Your task to perform on an android device: move an email to a new category in the gmail app Image 0: 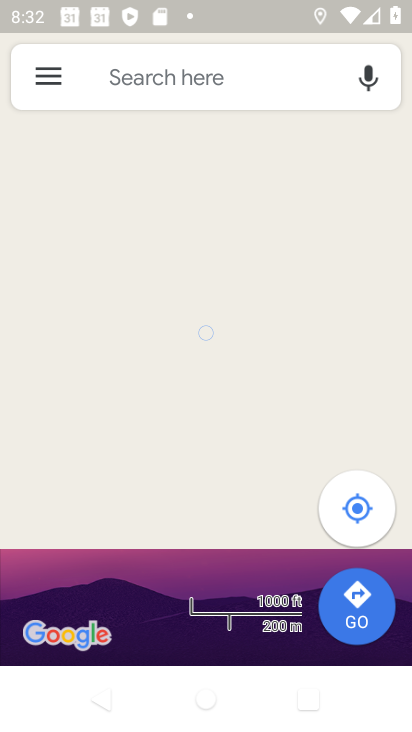
Step 0: drag from (249, 431) to (182, 86)
Your task to perform on an android device: move an email to a new category in the gmail app Image 1: 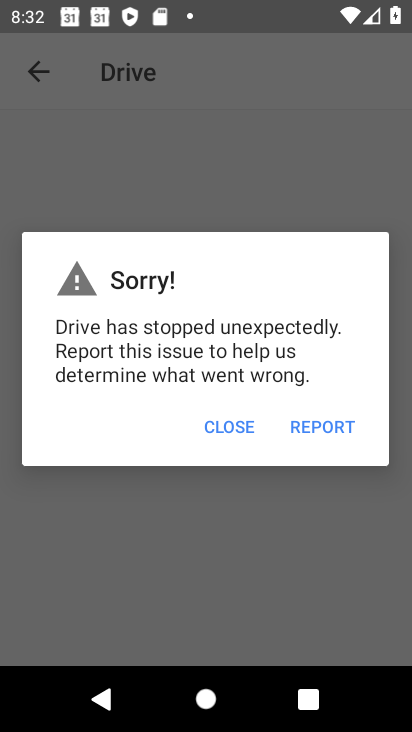
Step 1: press home button
Your task to perform on an android device: move an email to a new category in the gmail app Image 2: 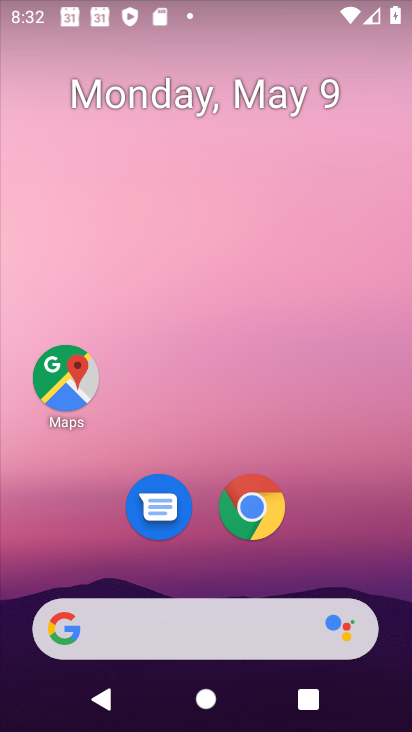
Step 2: drag from (308, 564) to (207, 203)
Your task to perform on an android device: move an email to a new category in the gmail app Image 3: 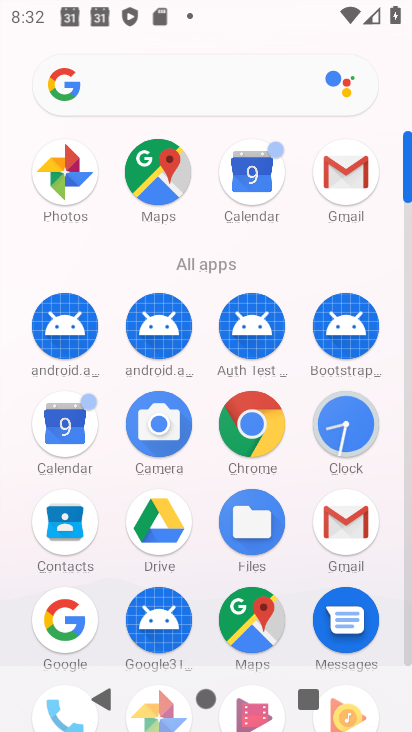
Step 3: click (345, 173)
Your task to perform on an android device: move an email to a new category in the gmail app Image 4: 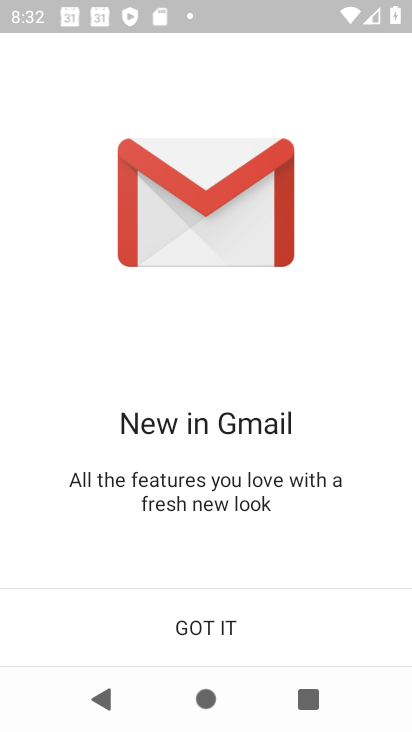
Step 4: click (210, 622)
Your task to perform on an android device: move an email to a new category in the gmail app Image 5: 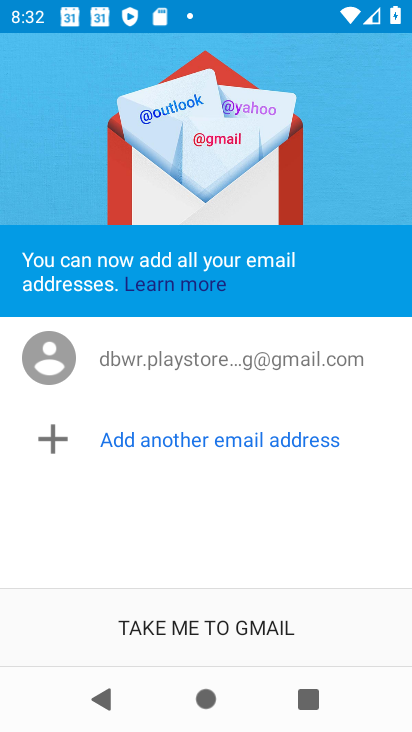
Step 5: click (210, 622)
Your task to perform on an android device: move an email to a new category in the gmail app Image 6: 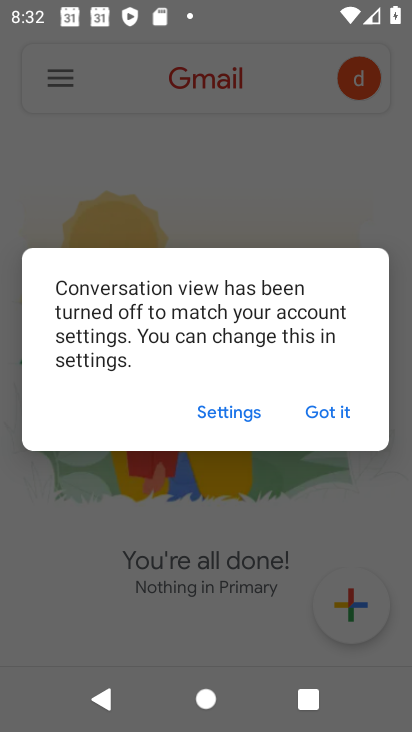
Step 6: click (314, 407)
Your task to perform on an android device: move an email to a new category in the gmail app Image 7: 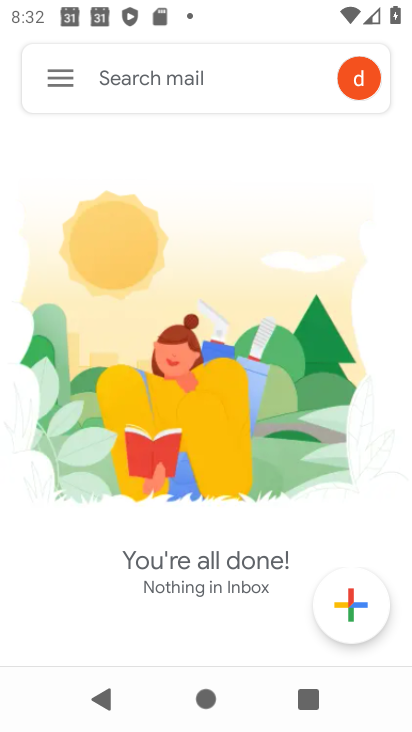
Step 7: click (63, 76)
Your task to perform on an android device: move an email to a new category in the gmail app Image 8: 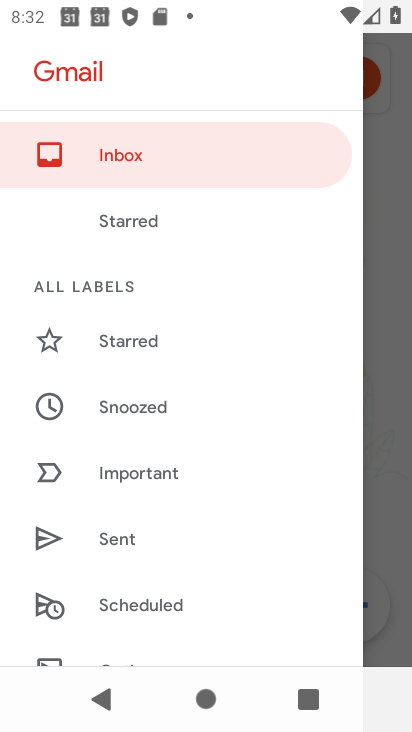
Step 8: drag from (164, 528) to (194, 391)
Your task to perform on an android device: move an email to a new category in the gmail app Image 9: 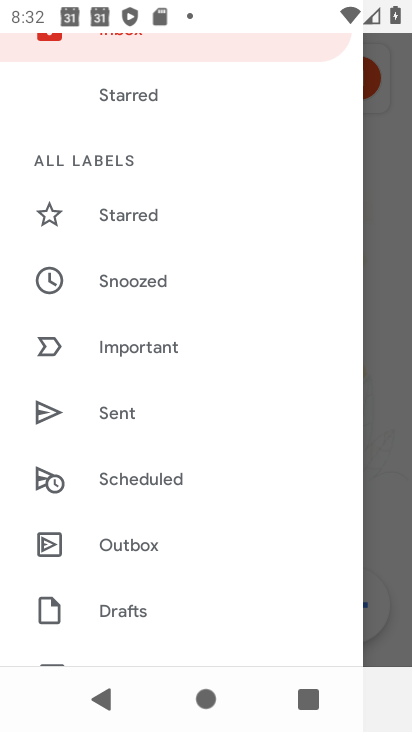
Step 9: drag from (169, 558) to (203, 455)
Your task to perform on an android device: move an email to a new category in the gmail app Image 10: 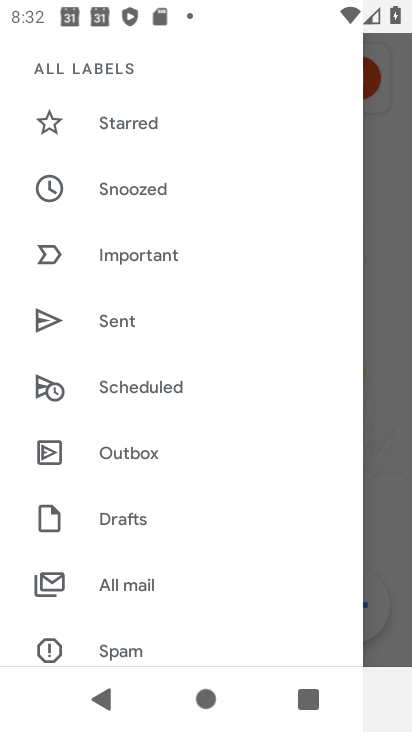
Step 10: drag from (166, 560) to (171, 481)
Your task to perform on an android device: move an email to a new category in the gmail app Image 11: 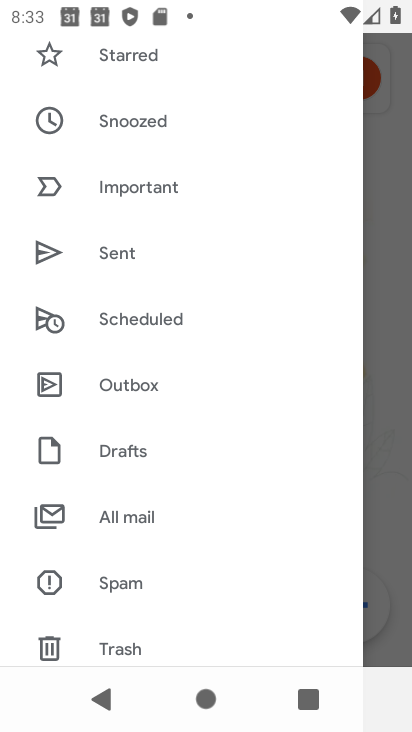
Step 11: click (129, 514)
Your task to perform on an android device: move an email to a new category in the gmail app Image 12: 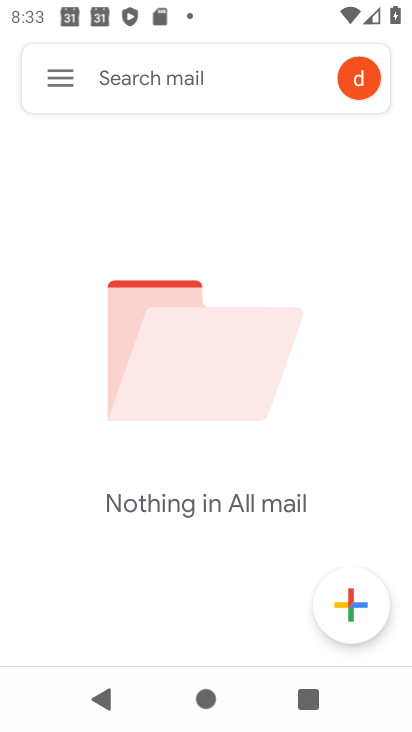
Step 12: task complete